Your task to perform on an android device: What's the weather going to be this weekend? Image 0: 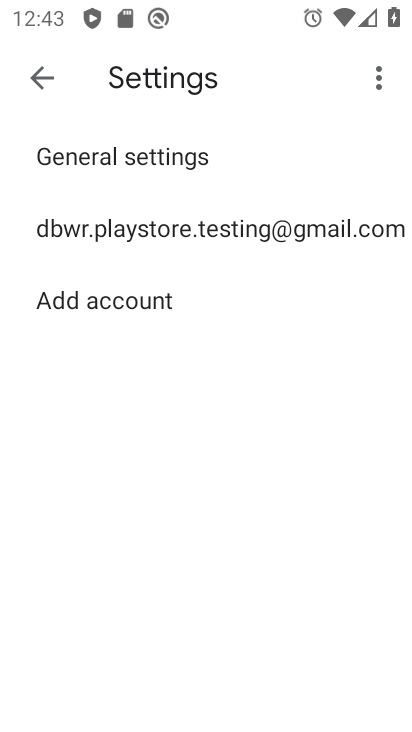
Step 0: press back button
Your task to perform on an android device: What's the weather going to be this weekend? Image 1: 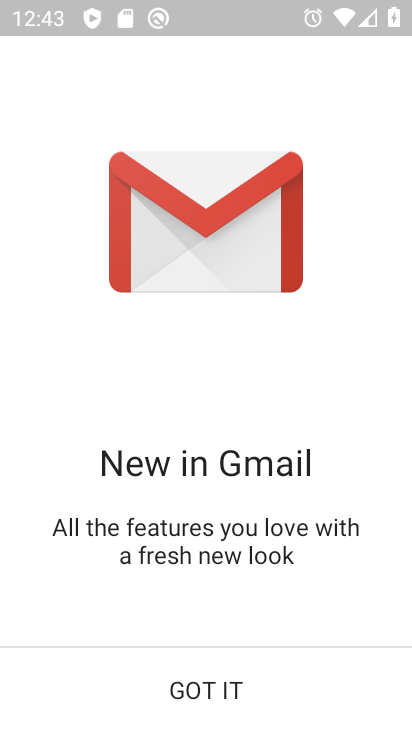
Step 1: press back button
Your task to perform on an android device: What's the weather going to be this weekend? Image 2: 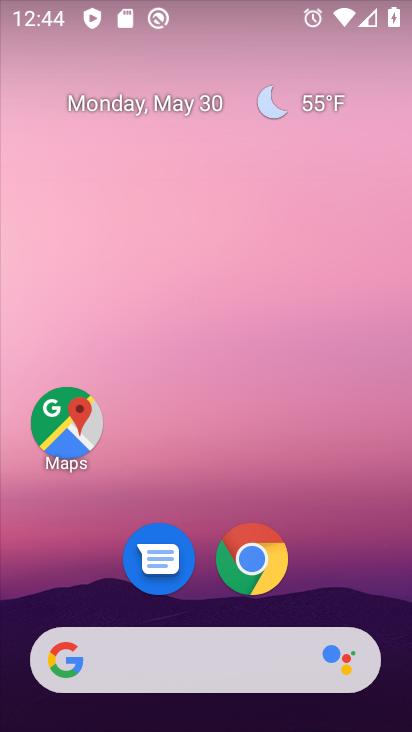
Step 2: click (164, 643)
Your task to perform on an android device: What's the weather going to be this weekend? Image 3: 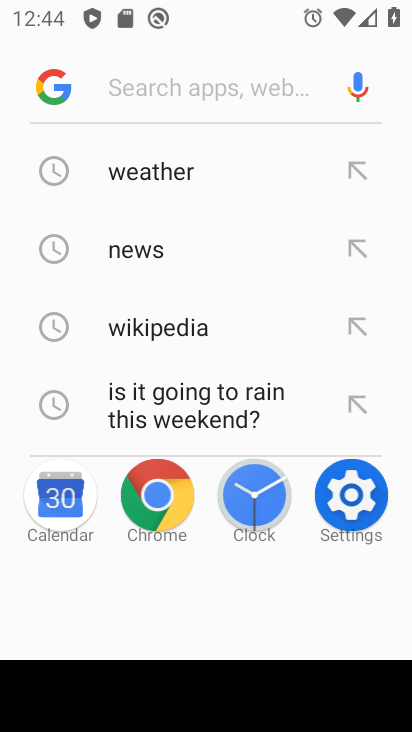
Step 3: click (140, 173)
Your task to perform on an android device: What's the weather going to be this weekend? Image 4: 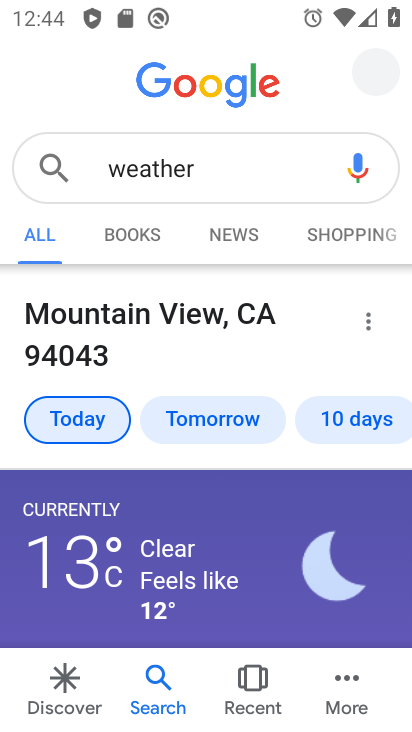
Step 4: click (356, 357)
Your task to perform on an android device: What's the weather going to be this weekend? Image 5: 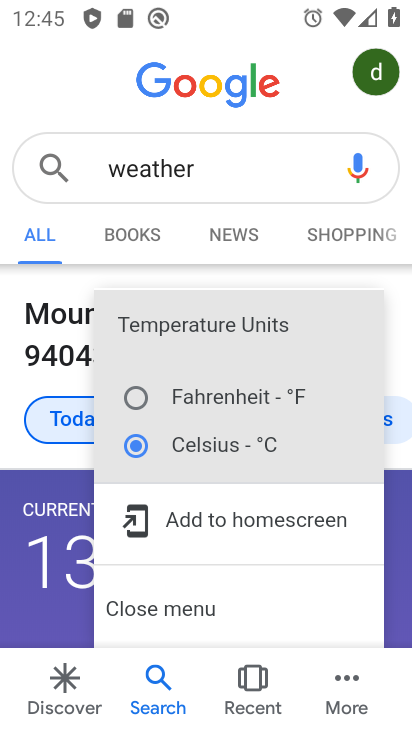
Step 5: click (33, 295)
Your task to perform on an android device: What's the weather going to be this weekend? Image 6: 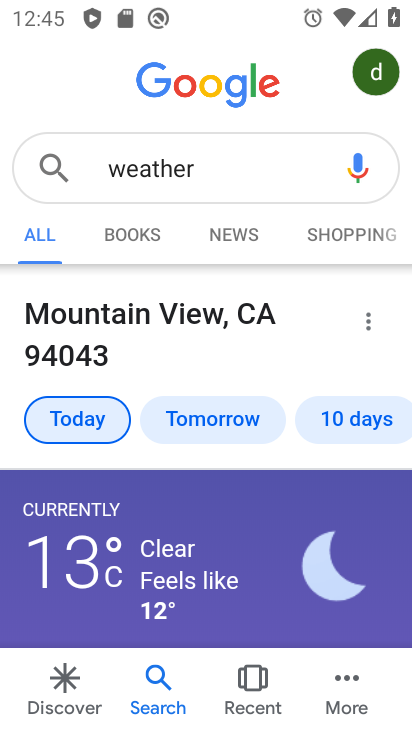
Step 6: click (345, 417)
Your task to perform on an android device: What's the weather going to be this weekend? Image 7: 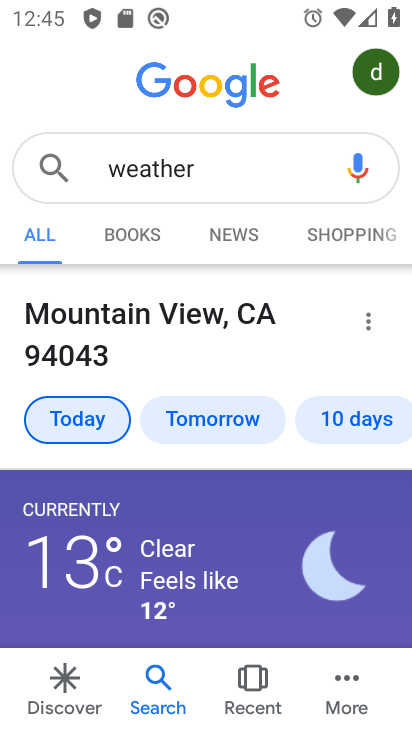
Step 7: click (334, 426)
Your task to perform on an android device: What's the weather going to be this weekend? Image 8: 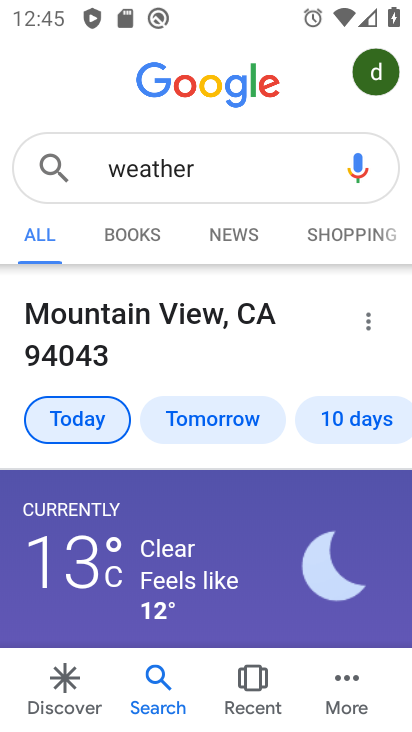
Step 8: task complete